Your task to perform on an android device: turn on the 24-hour format for clock Image 0: 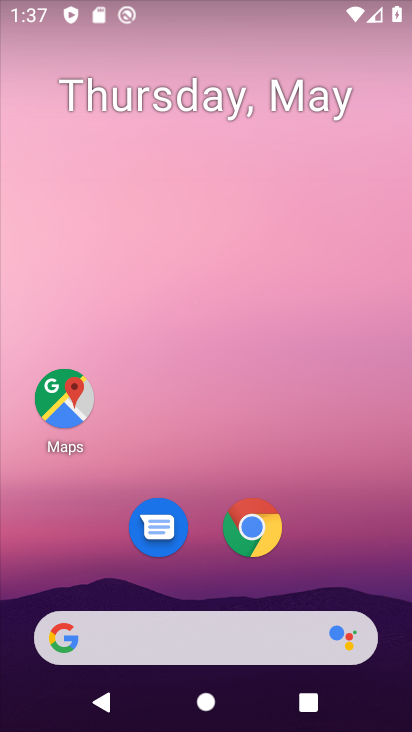
Step 0: drag from (310, 528) to (358, 9)
Your task to perform on an android device: turn on the 24-hour format for clock Image 1: 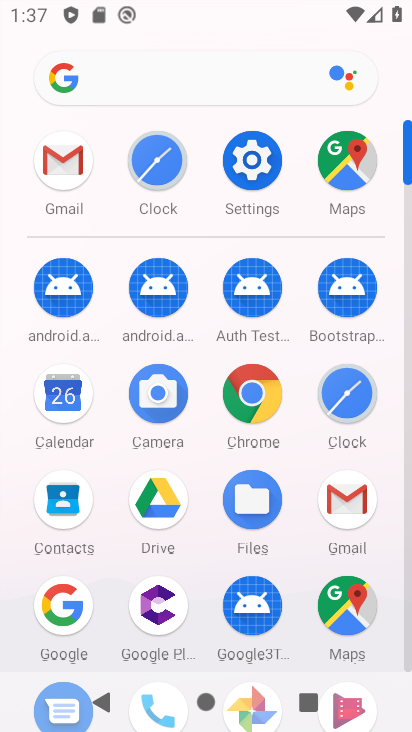
Step 1: click (348, 384)
Your task to perform on an android device: turn on the 24-hour format for clock Image 2: 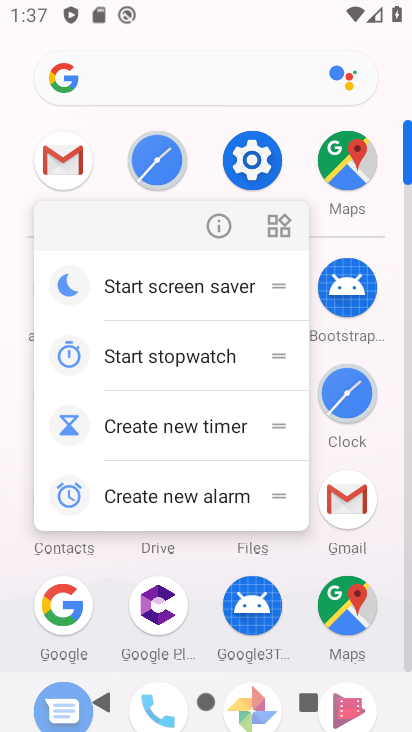
Step 2: click (210, 233)
Your task to perform on an android device: turn on the 24-hour format for clock Image 3: 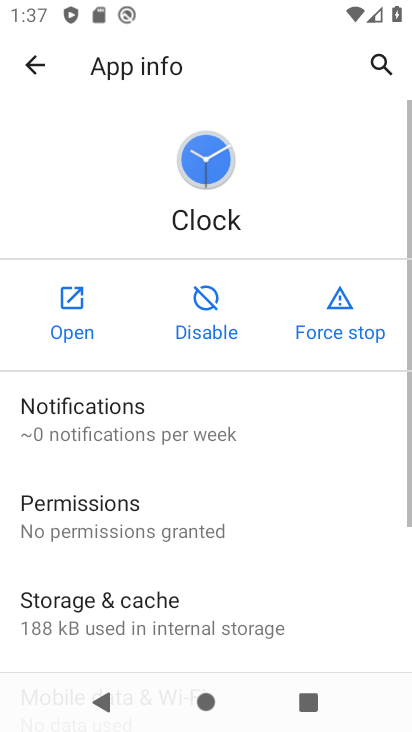
Step 3: click (65, 324)
Your task to perform on an android device: turn on the 24-hour format for clock Image 4: 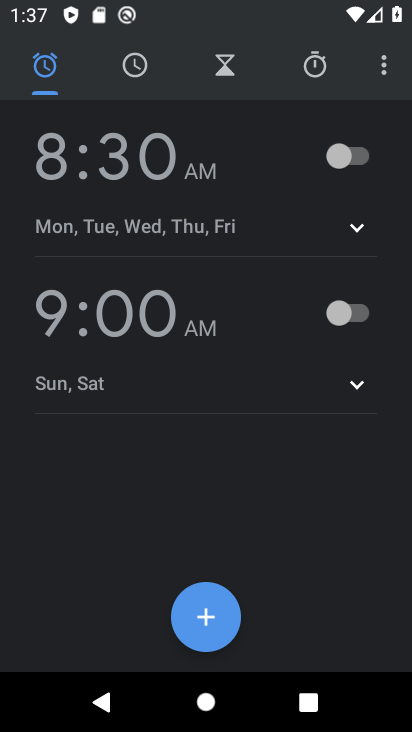
Step 4: click (377, 66)
Your task to perform on an android device: turn on the 24-hour format for clock Image 5: 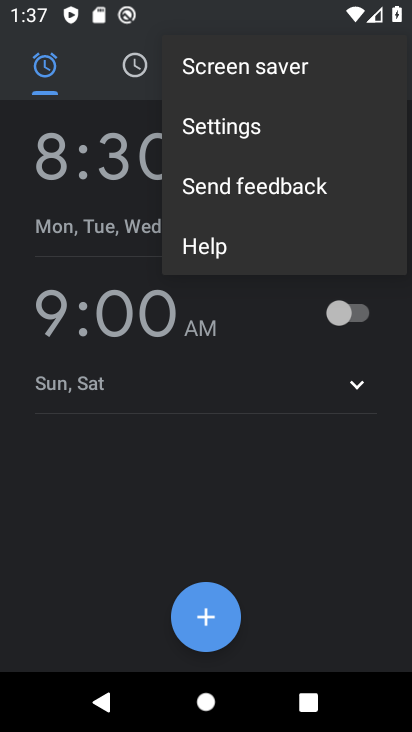
Step 5: click (280, 116)
Your task to perform on an android device: turn on the 24-hour format for clock Image 6: 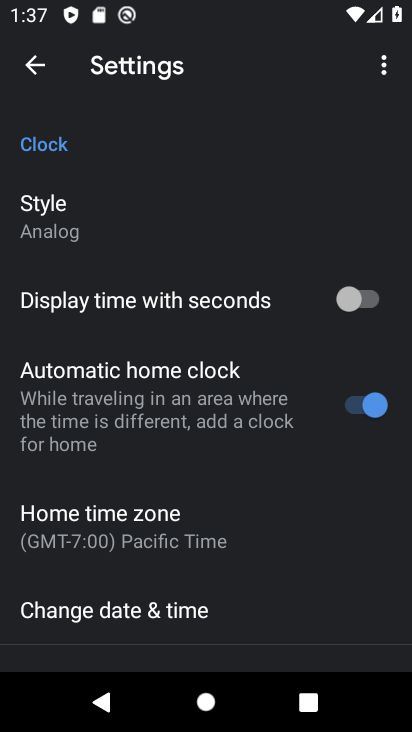
Step 6: click (180, 611)
Your task to perform on an android device: turn on the 24-hour format for clock Image 7: 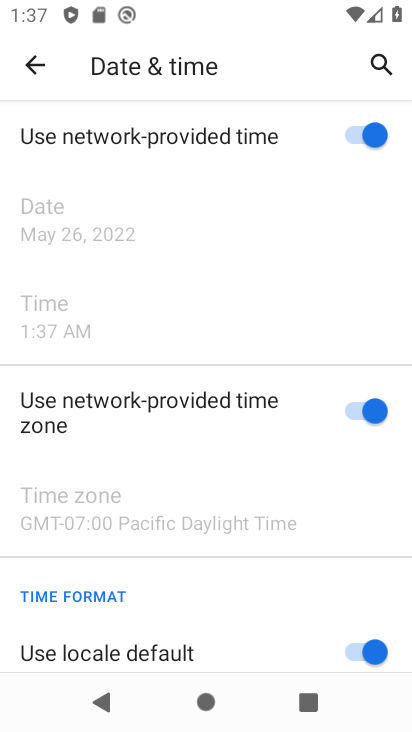
Step 7: drag from (320, 580) to (365, 256)
Your task to perform on an android device: turn on the 24-hour format for clock Image 8: 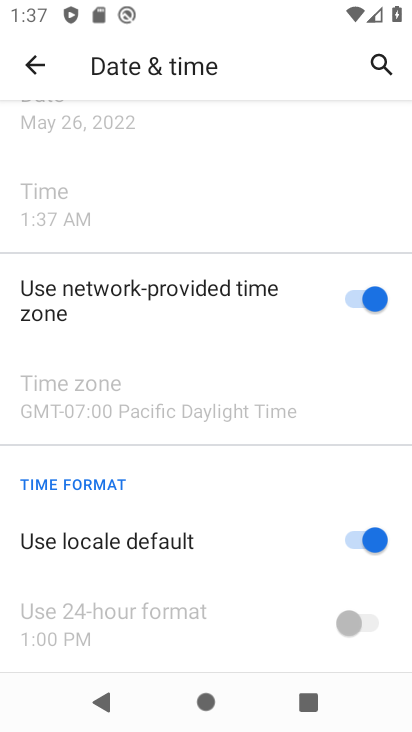
Step 8: click (370, 543)
Your task to perform on an android device: turn on the 24-hour format for clock Image 9: 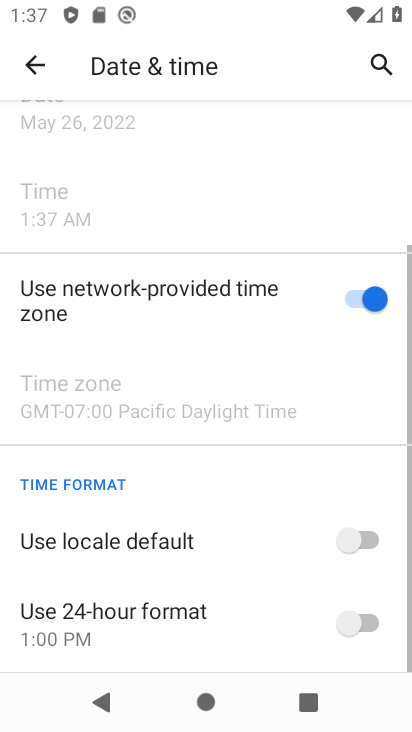
Step 9: click (355, 628)
Your task to perform on an android device: turn on the 24-hour format for clock Image 10: 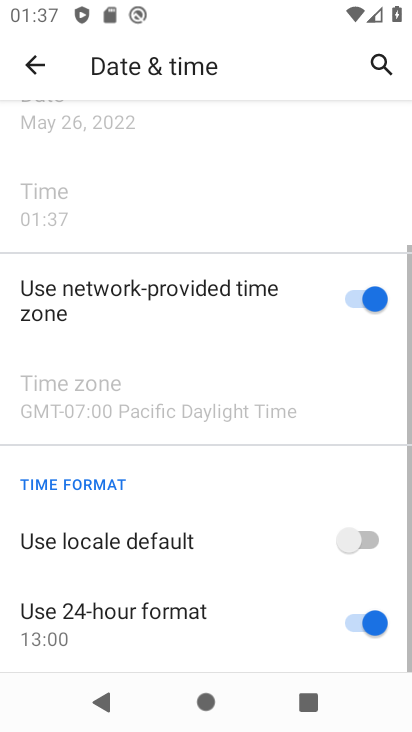
Step 10: task complete